Your task to perform on an android device: Open calendar and show me the second week of next month Image 0: 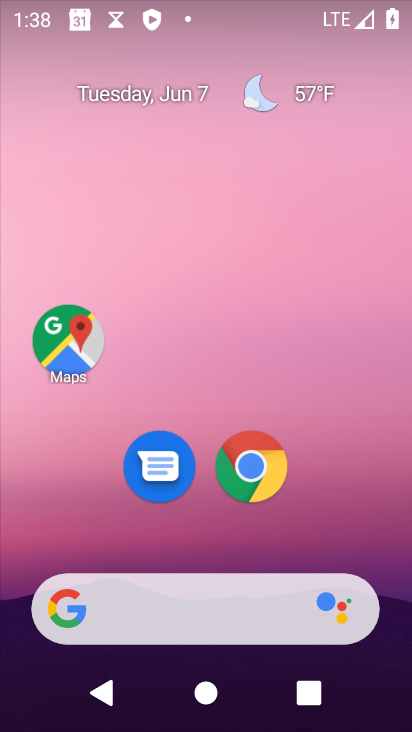
Step 0: drag from (215, 569) to (284, 7)
Your task to perform on an android device: Open calendar and show me the second week of next month Image 1: 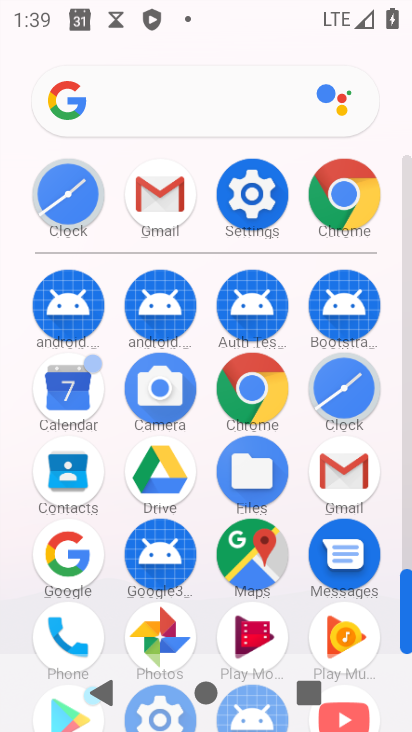
Step 1: click (73, 393)
Your task to perform on an android device: Open calendar and show me the second week of next month Image 2: 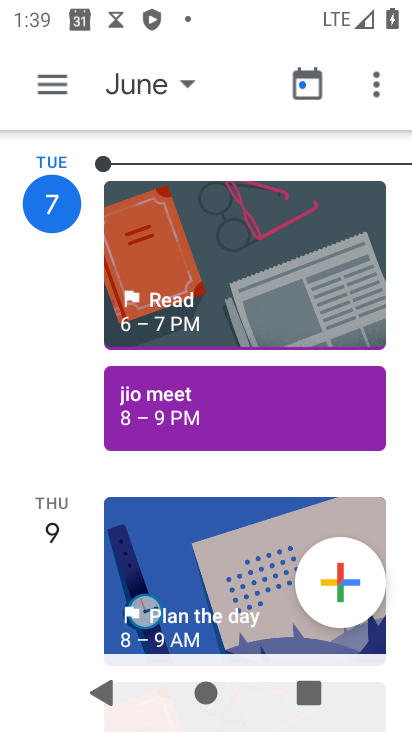
Step 2: click (166, 81)
Your task to perform on an android device: Open calendar and show me the second week of next month Image 3: 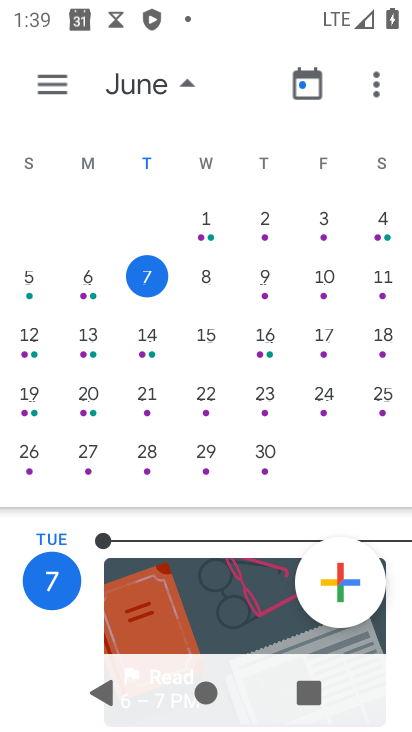
Step 3: drag from (376, 312) to (35, 325)
Your task to perform on an android device: Open calendar and show me the second week of next month Image 4: 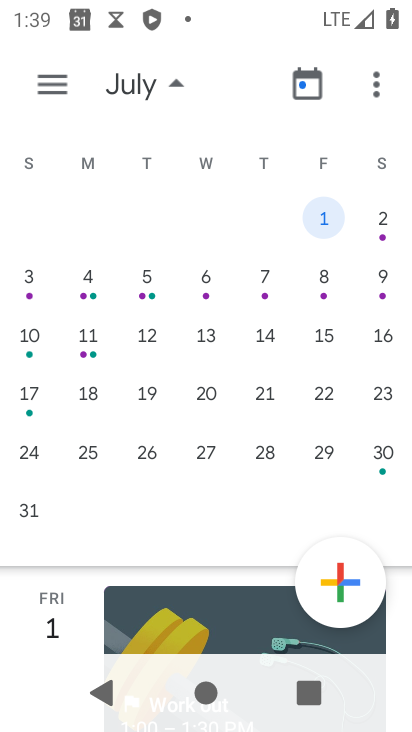
Step 4: click (83, 332)
Your task to perform on an android device: Open calendar and show me the second week of next month Image 5: 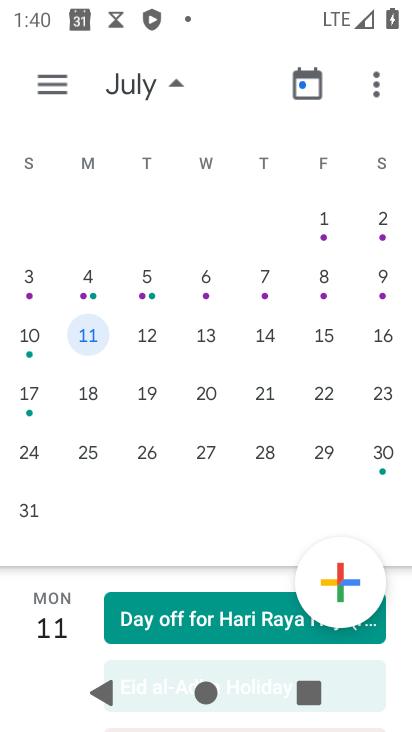
Step 5: task complete